Your task to perform on an android device: Go to Reddit.com Image 0: 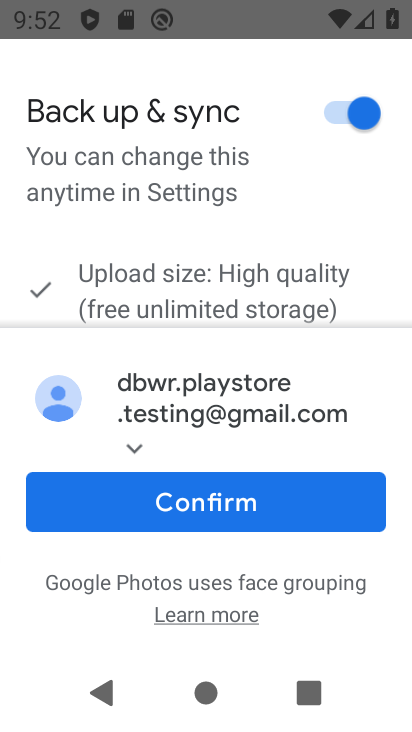
Step 0: press home button
Your task to perform on an android device: Go to Reddit.com Image 1: 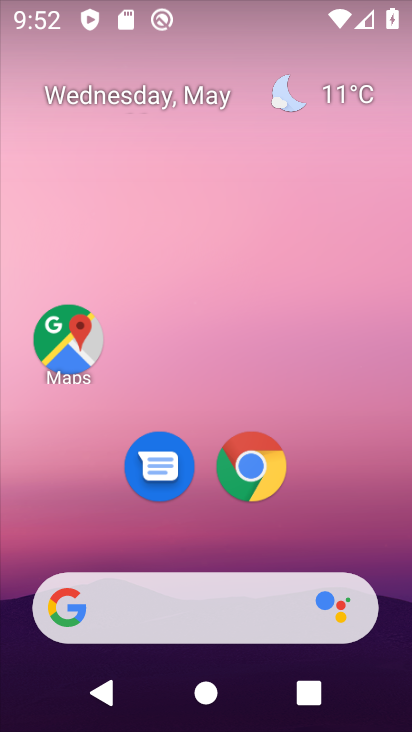
Step 1: click (290, 474)
Your task to perform on an android device: Go to Reddit.com Image 2: 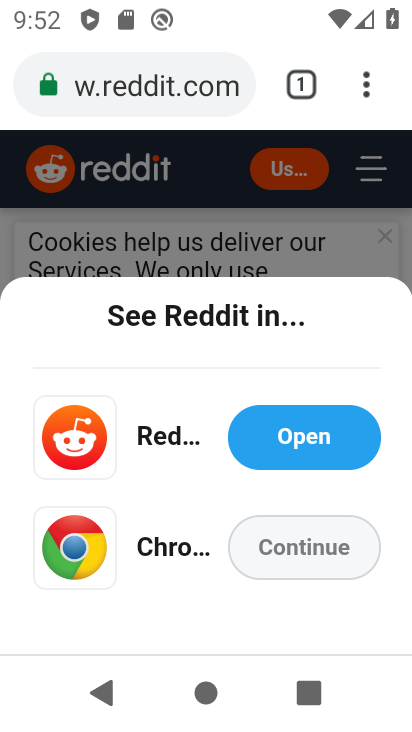
Step 2: task complete